Your task to perform on an android device: check android version Image 0: 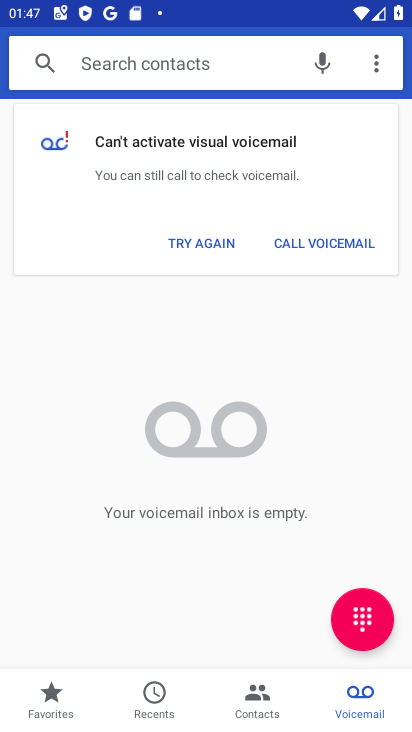
Step 0: drag from (214, 485) to (253, 340)
Your task to perform on an android device: check android version Image 1: 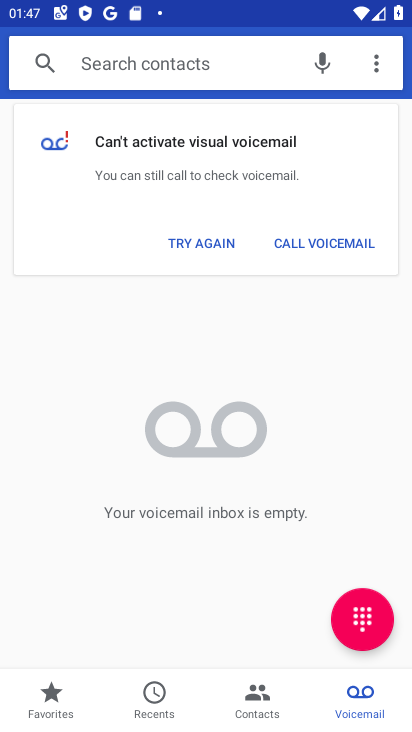
Step 1: press home button
Your task to perform on an android device: check android version Image 2: 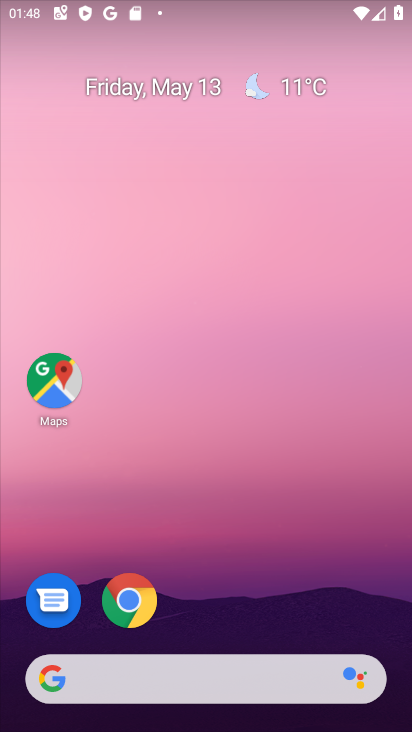
Step 2: drag from (198, 626) to (261, 313)
Your task to perform on an android device: check android version Image 3: 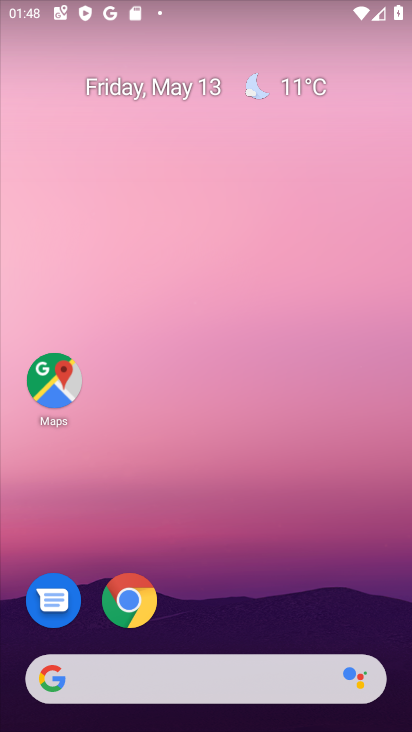
Step 3: drag from (186, 623) to (186, 225)
Your task to perform on an android device: check android version Image 4: 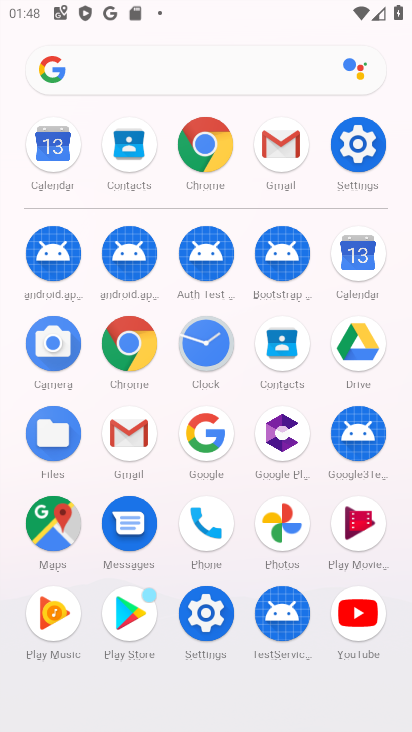
Step 4: click (347, 155)
Your task to perform on an android device: check android version Image 5: 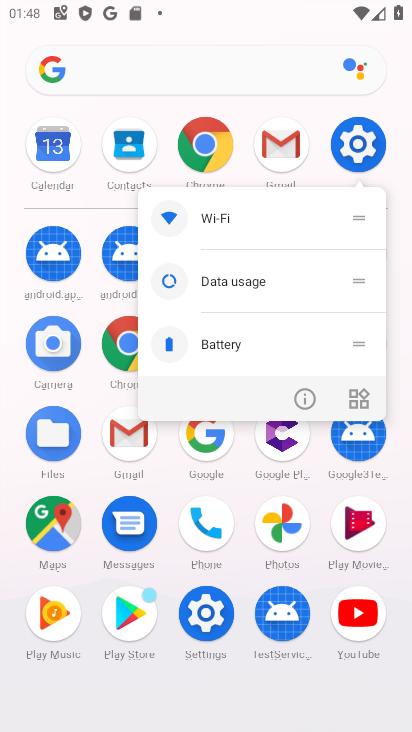
Step 5: click (308, 401)
Your task to perform on an android device: check android version Image 6: 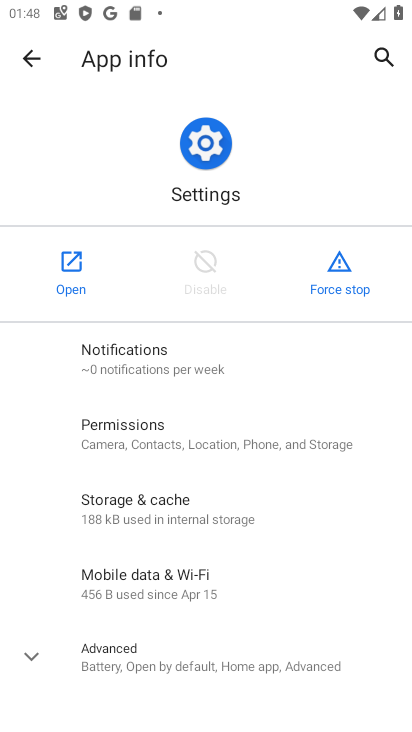
Step 6: click (70, 280)
Your task to perform on an android device: check android version Image 7: 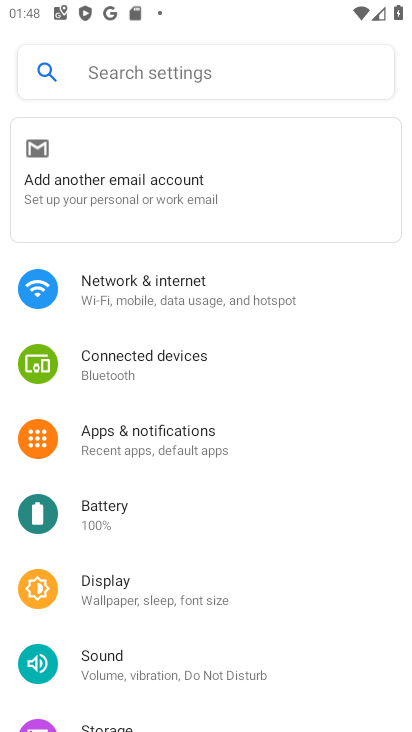
Step 7: drag from (178, 646) to (279, 137)
Your task to perform on an android device: check android version Image 8: 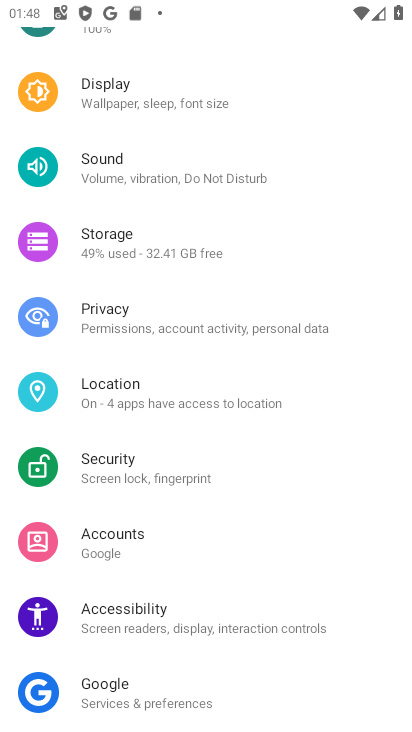
Step 8: drag from (167, 669) to (295, 17)
Your task to perform on an android device: check android version Image 9: 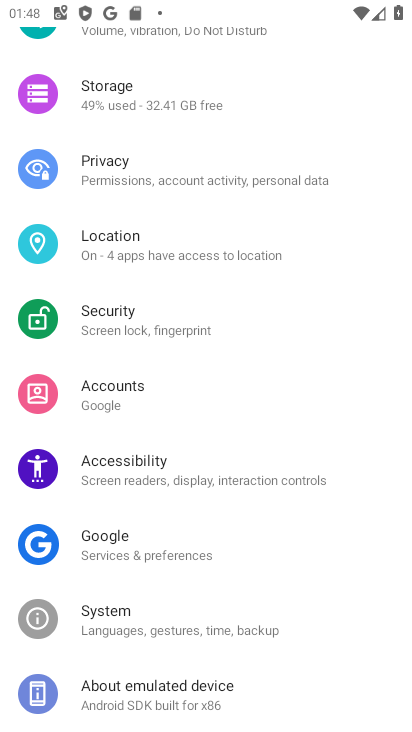
Step 9: click (169, 694)
Your task to perform on an android device: check android version Image 10: 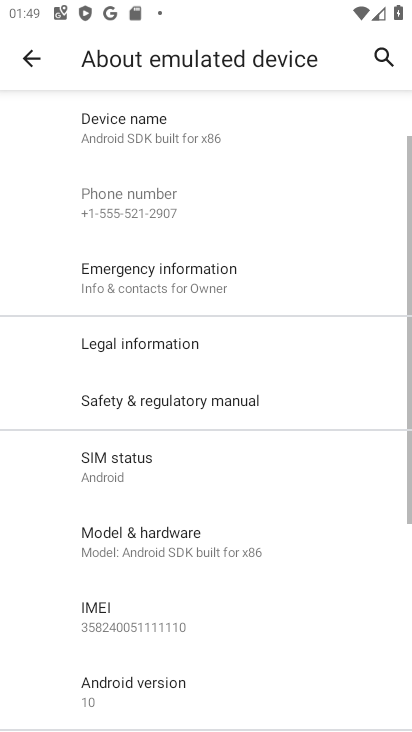
Step 10: click (156, 674)
Your task to perform on an android device: check android version Image 11: 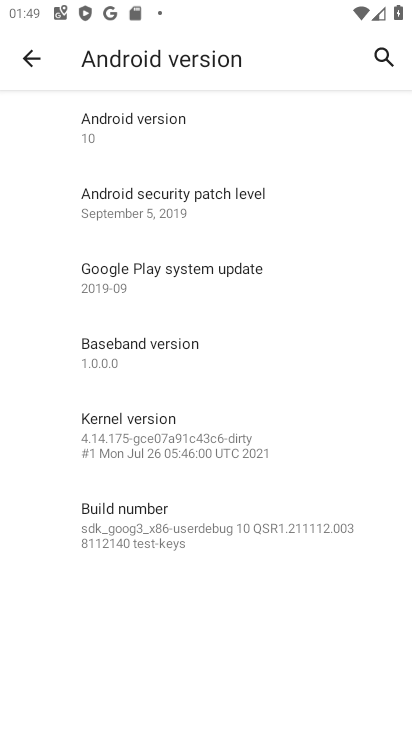
Step 11: task complete